Your task to perform on an android device: change alarm snooze length Image 0: 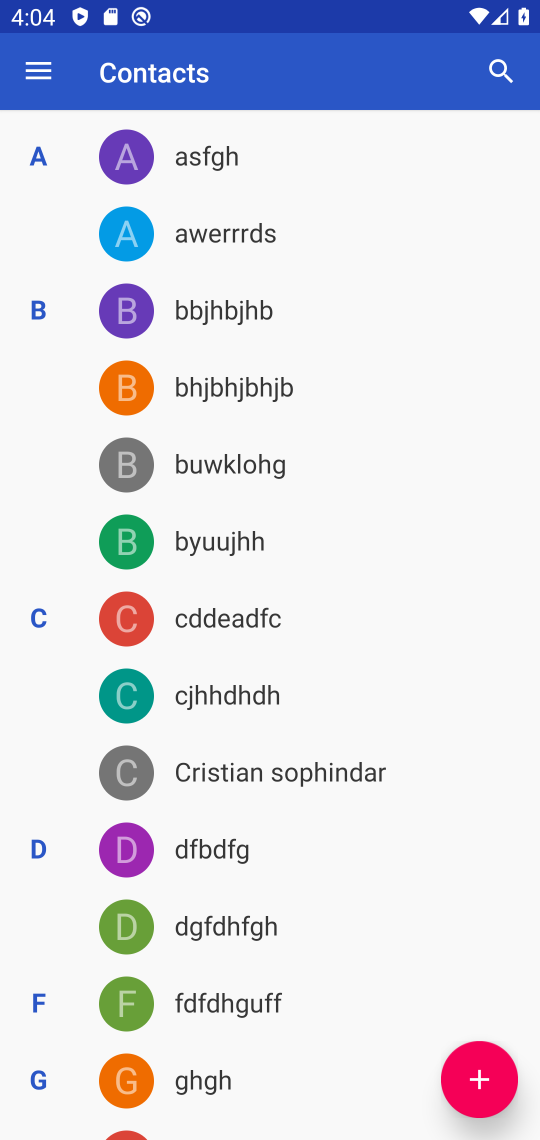
Step 0: press home button
Your task to perform on an android device: change alarm snooze length Image 1: 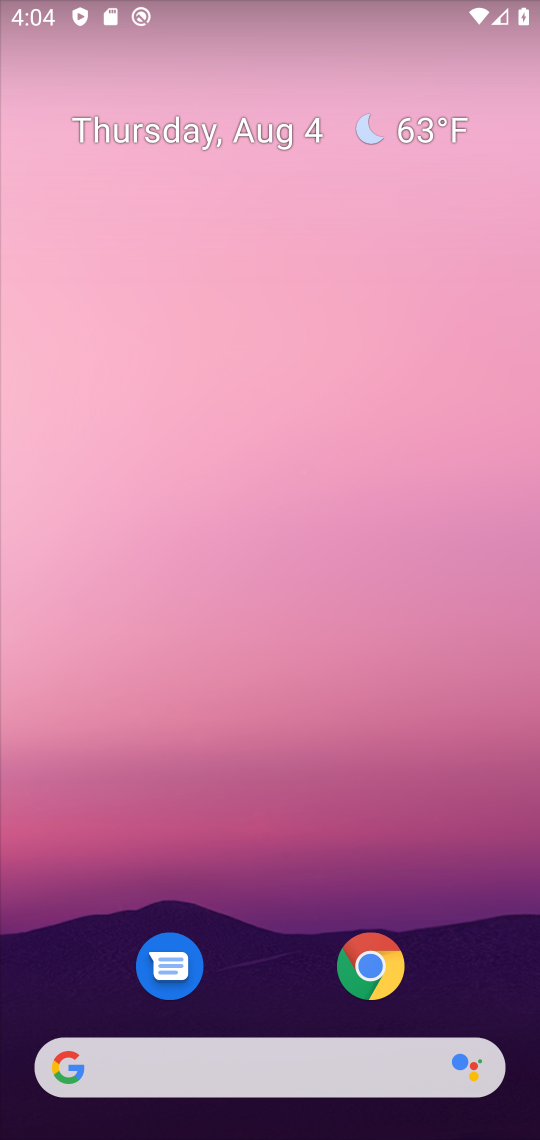
Step 1: drag from (387, 983) to (387, 73)
Your task to perform on an android device: change alarm snooze length Image 2: 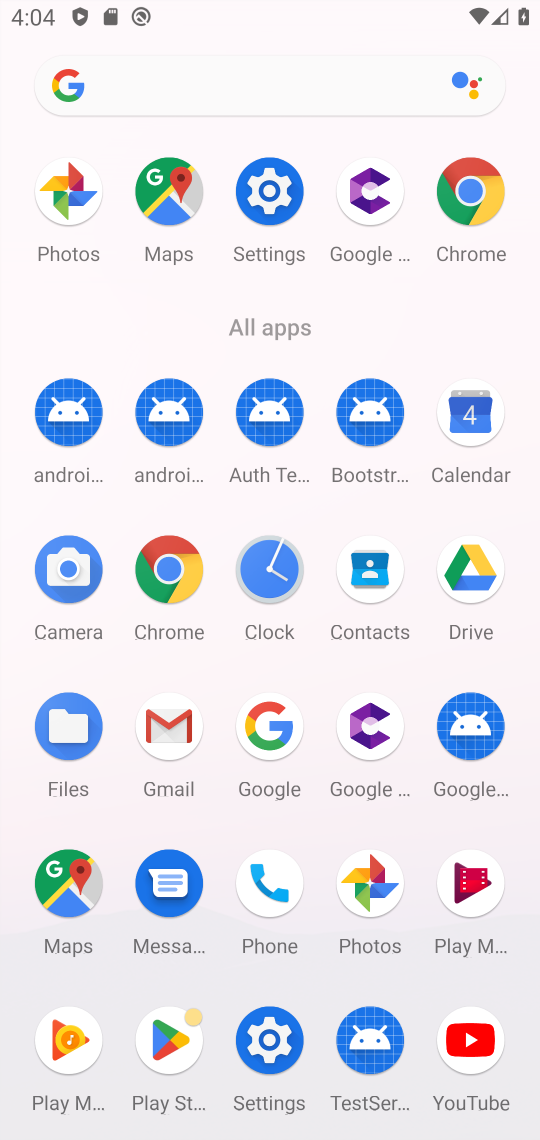
Step 2: click (297, 553)
Your task to perform on an android device: change alarm snooze length Image 3: 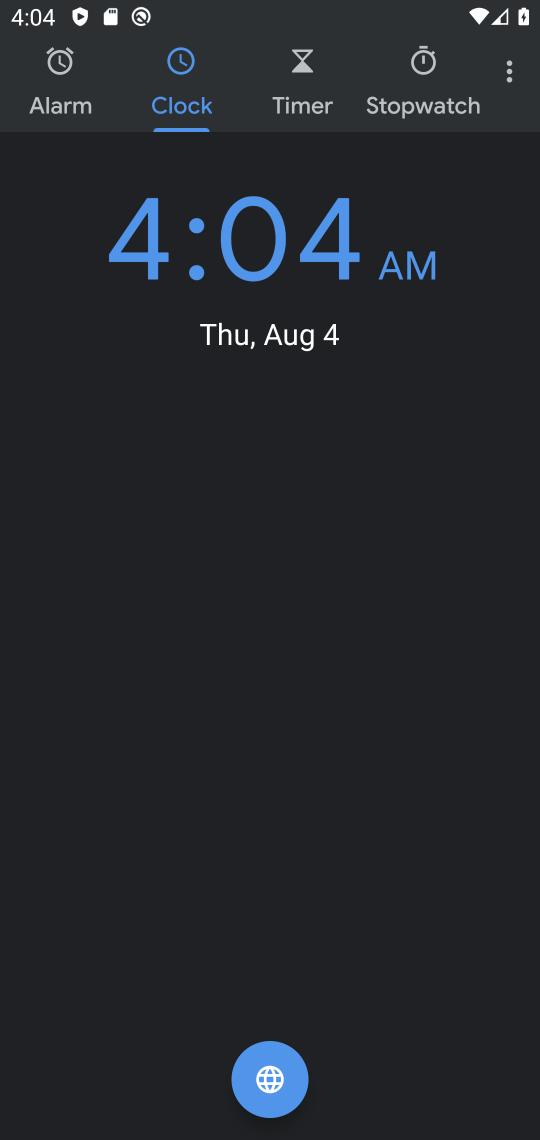
Step 3: click (504, 91)
Your task to perform on an android device: change alarm snooze length Image 4: 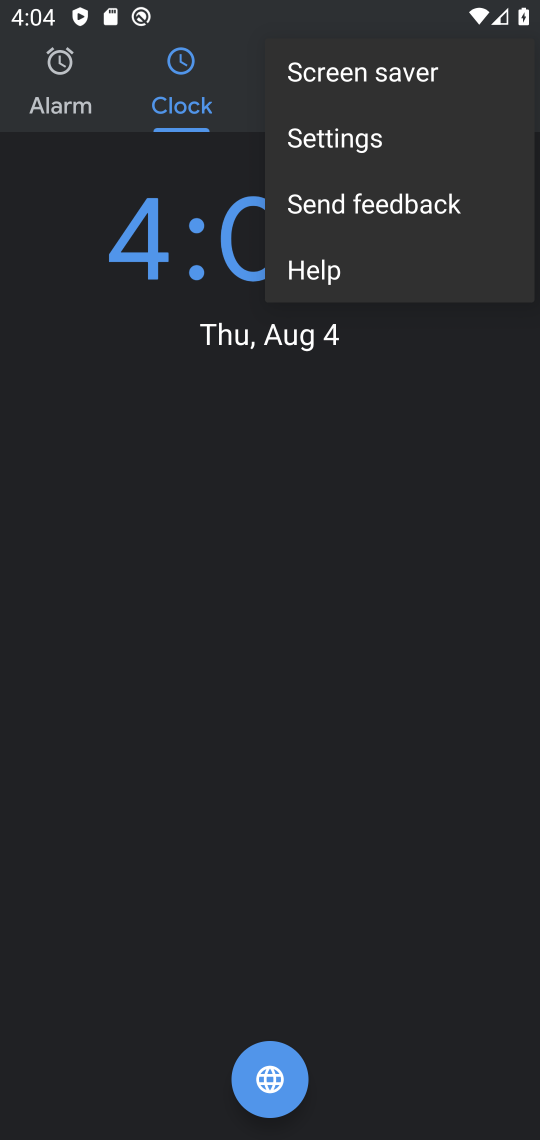
Step 4: click (355, 151)
Your task to perform on an android device: change alarm snooze length Image 5: 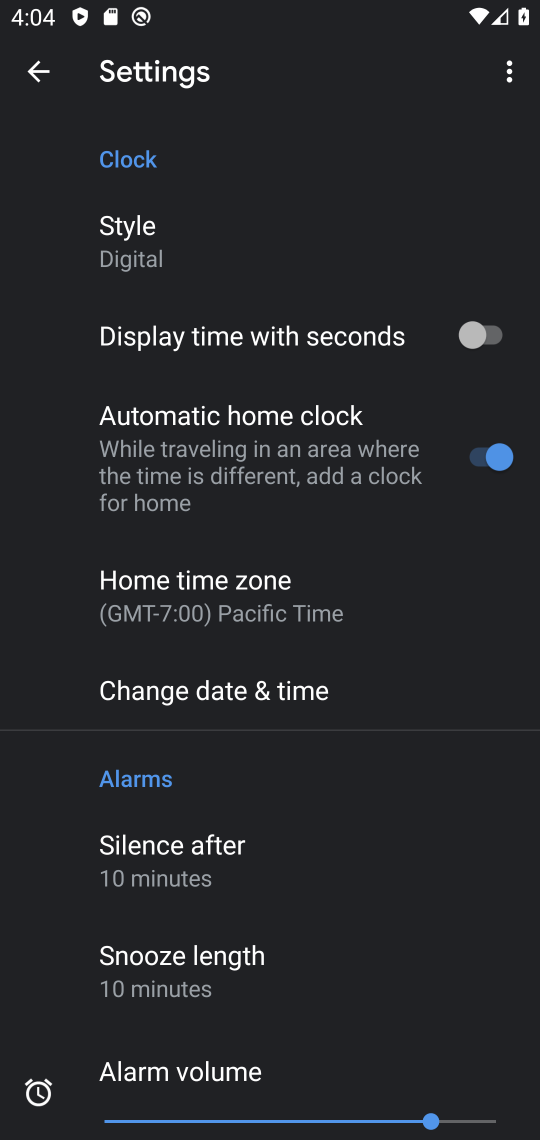
Step 5: click (171, 944)
Your task to perform on an android device: change alarm snooze length Image 6: 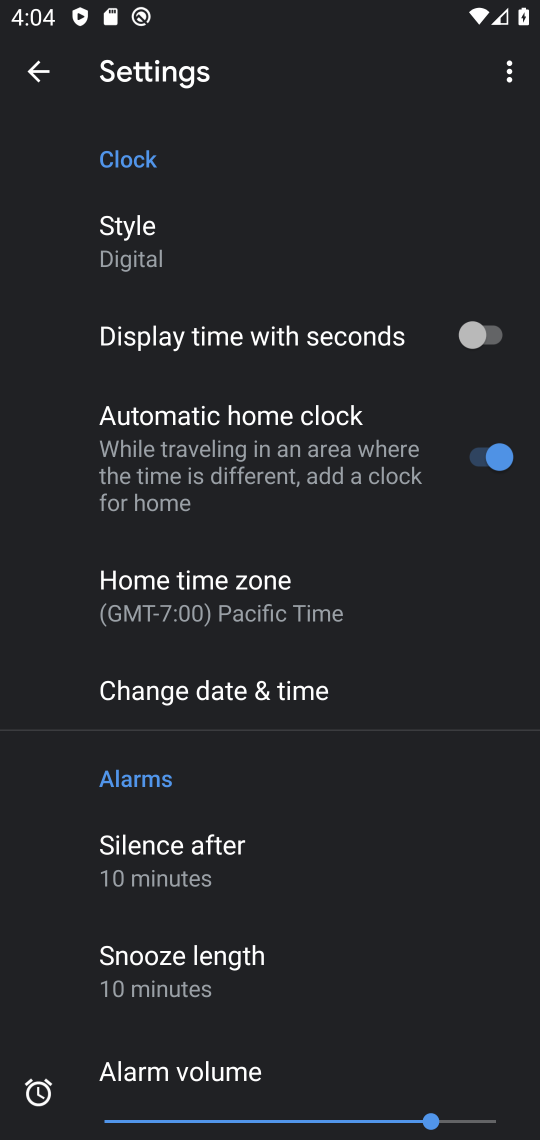
Step 6: click (182, 968)
Your task to perform on an android device: change alarm snooze length Image 7: 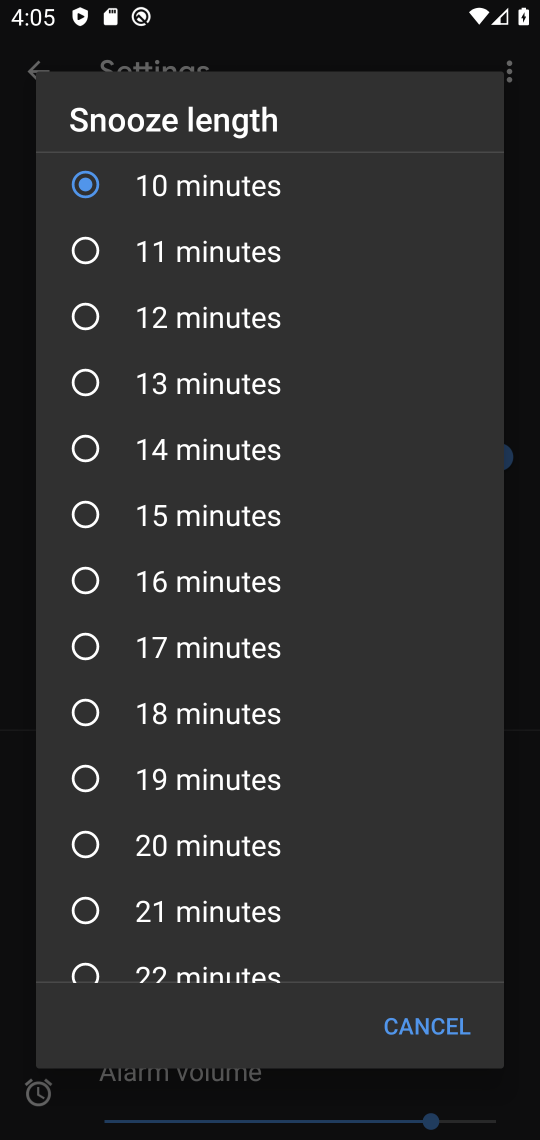
Step 7: click (111, 655)
Your task to perform on an android device: change alarm snooze length Image 8: 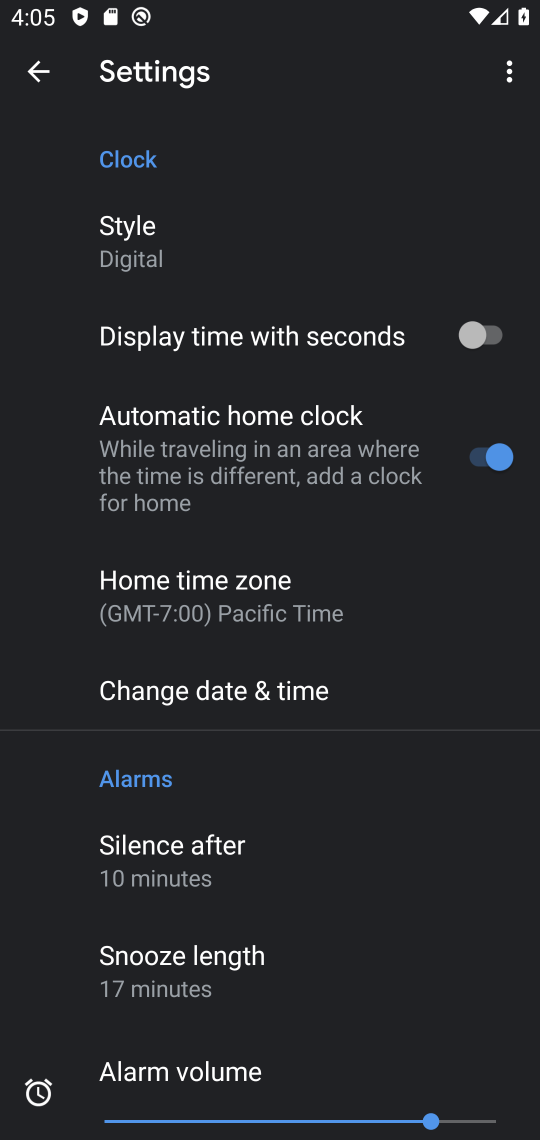
Step 8: task complete